Your task to perform on an android device: set default search engine in the chrome app Image 0: 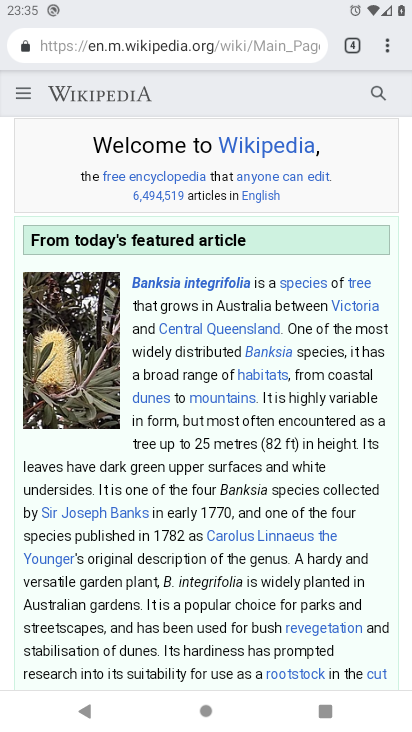
Step 0: click (391, 61)
Your task to perform on an android device: set default search engine in the chrome app Image 1: 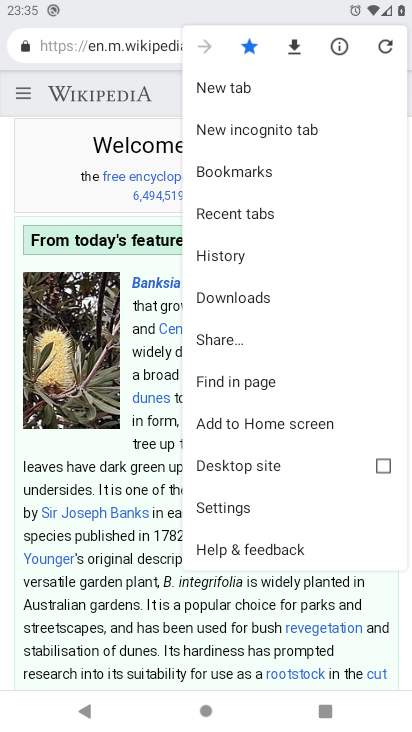
Step 1: click (273, 510)
Your task to perform on an android device: set default search engine in the chrome app Image 2: 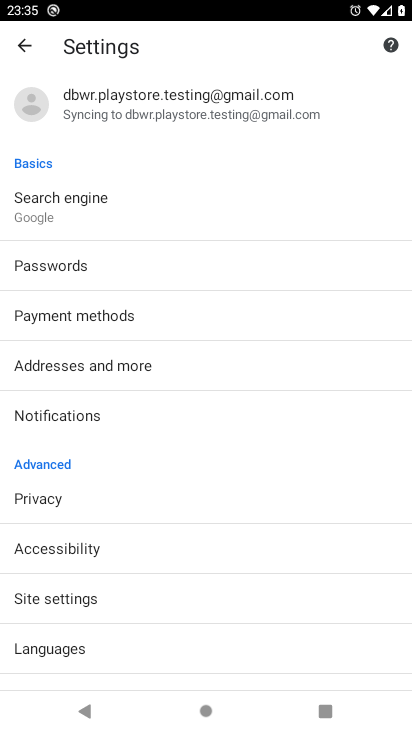
Step 2: click (112, 202)
Your task to perform on an android device: set default search engine in the chrome app Image 3: 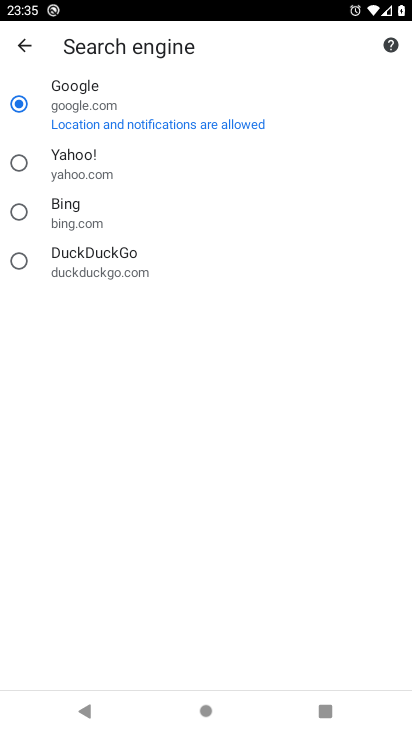
Step 3: click (94, 176)
Your task to perform on an android device: set default search engine in the chrome app Image 4: 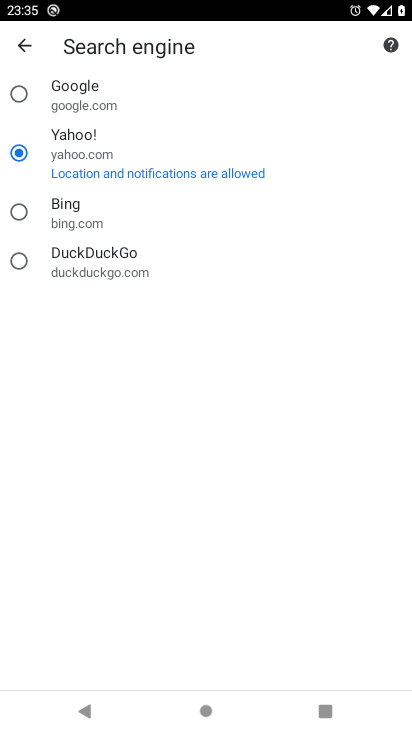
Step 4: task complete